Your task to perform on an android device: change the clock display to analog Image 0: 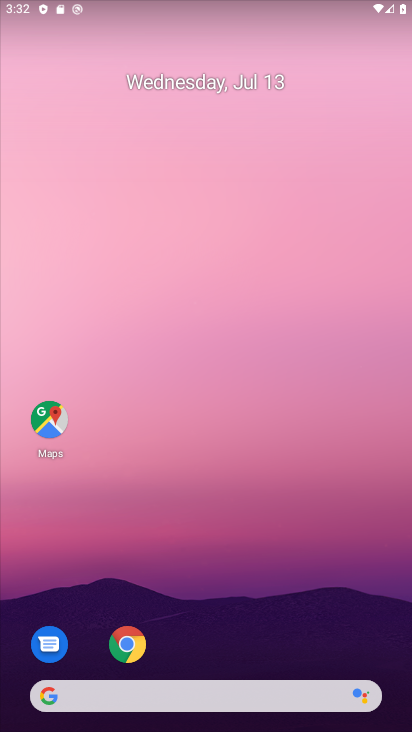
Step 0: drag from (207, 649) to (219, 175)
Your task to perform on an android device: change the clock display to analog Image 1: 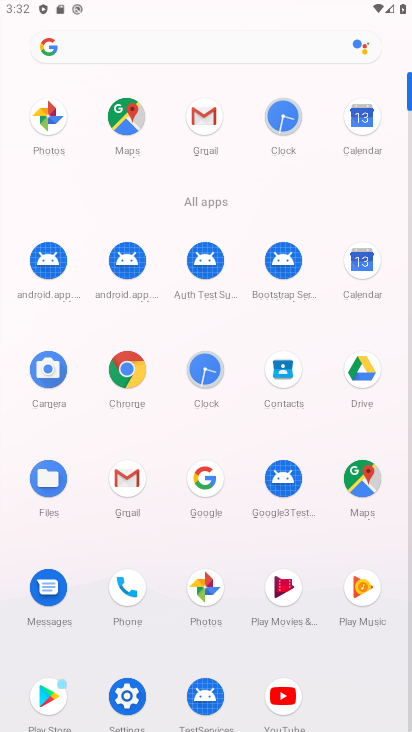
Step 1: click (213, 378)
Your task to perform on an android device: change the clock display to analog Image 2: 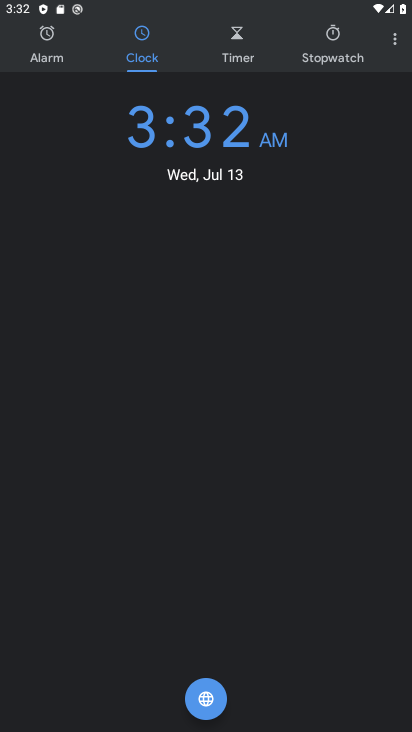
Step 2: click (396, 39)
Your task to perform on an android device: change the clock display to analog Image 3: 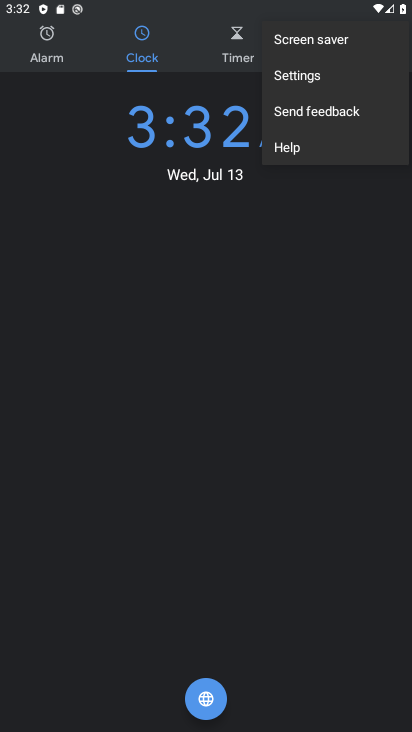
Step 3: click (359, 73)
Your task to perform on an android device: change the clock display to analog Image 4: 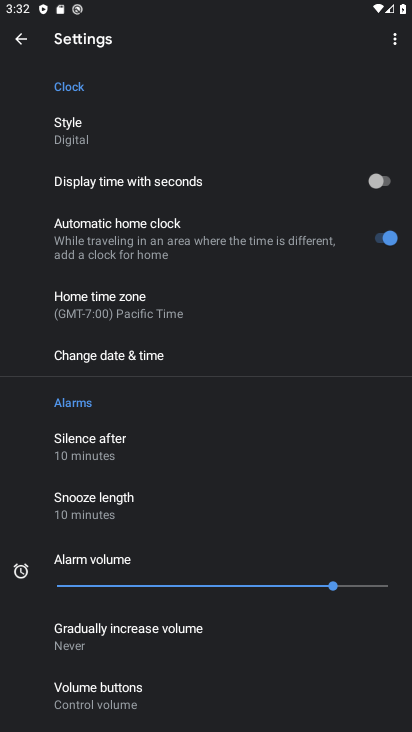
Step 4: click (151, 132)
Your task to perform on an android device: change the clock display to analog Image 5: 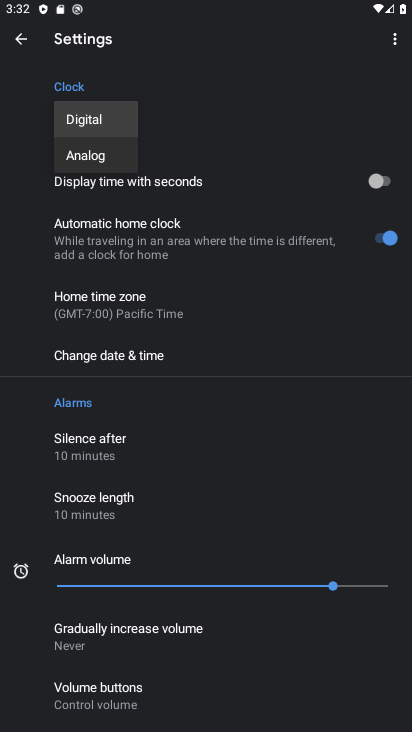
Step 5: click (113, 156)
Your task to perform on an android device: change the clock display to analog Image 6: 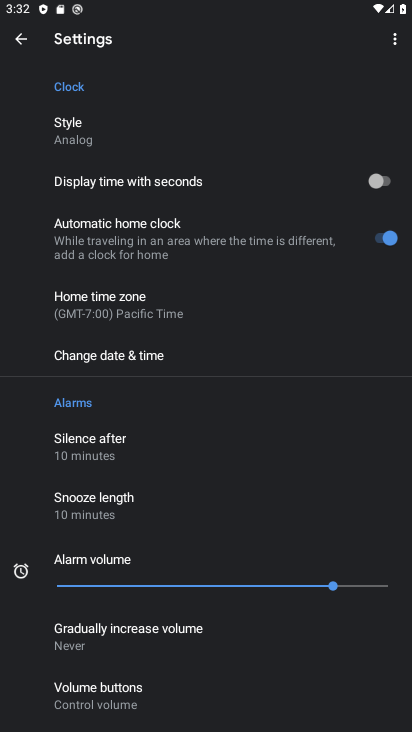
Step 6: task complete